Your task to perform on an android device: toggle sleep mode Image 0: 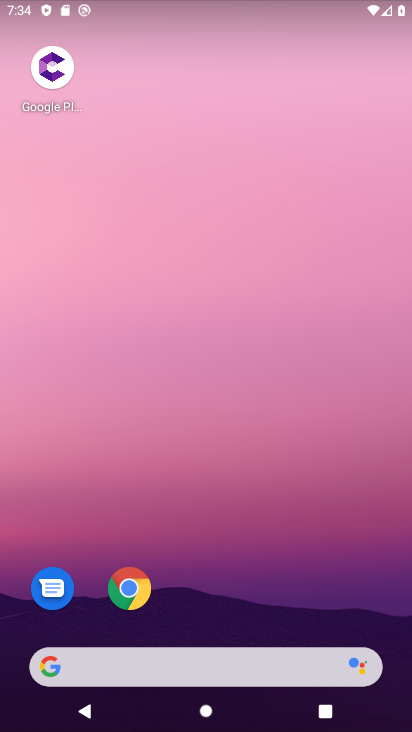
Step 0: drag from (249, 591) to (262, 0)
Your task to perform on an android device: toggle sleep mode Image 1: 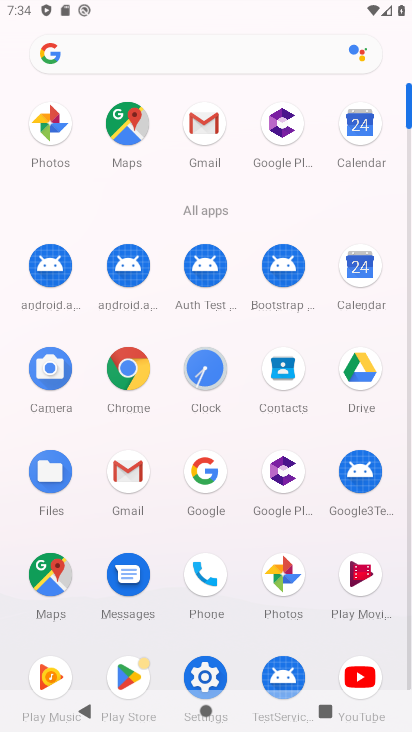
Step 1: click (210, 661)
Your task to perform on an android device: toggle sleep mode Image 2: 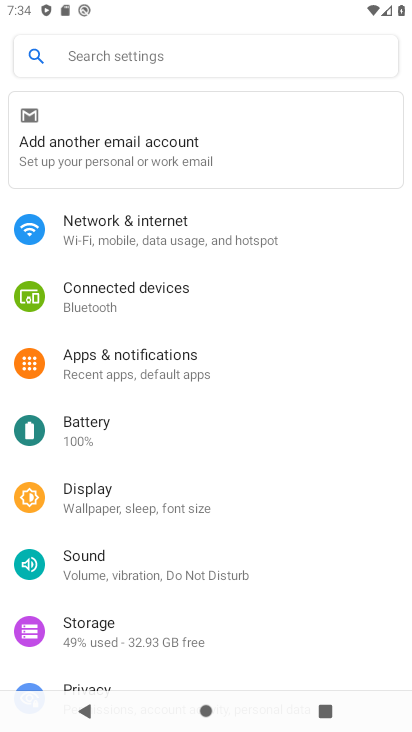
Step 2: click (127, 497)
Your task to perform on an android device: toggle sleep mode Image 3: 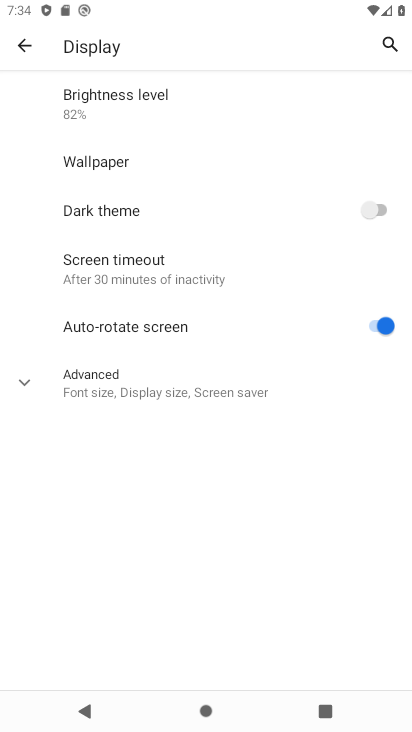
Step 3: click (23, 379)
Your task to perform on an android device: toggle sleep mode Image 4: 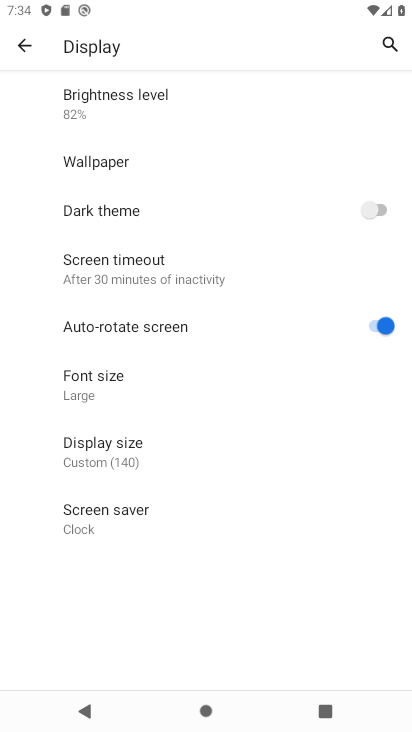
Step 4: click (102, 451)
Your task to perform on an android device: toggle sleep mode Image 5: 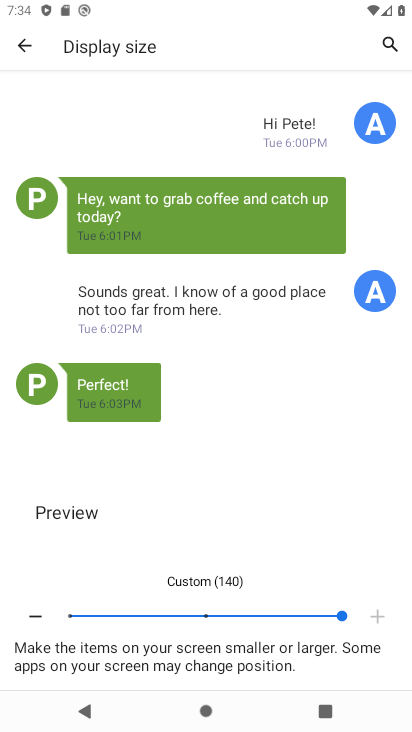
Step 5: click (32, 616)
Your task to perform on an android device: toggle sleep mode Image 6: 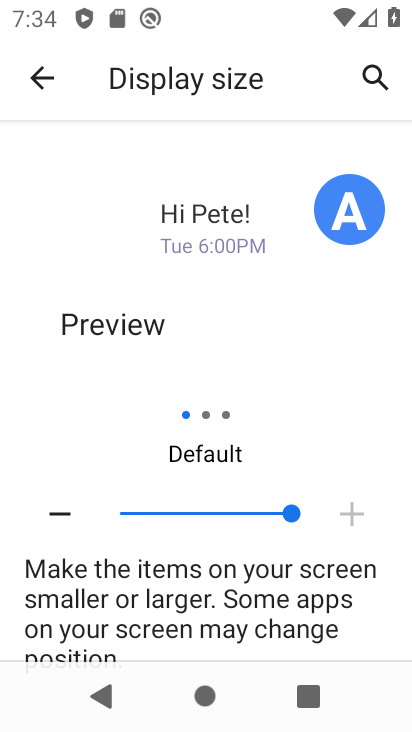
Step 6: click (62, 508)
Your task to perform on an android device: toggle sleep mode Image 7: 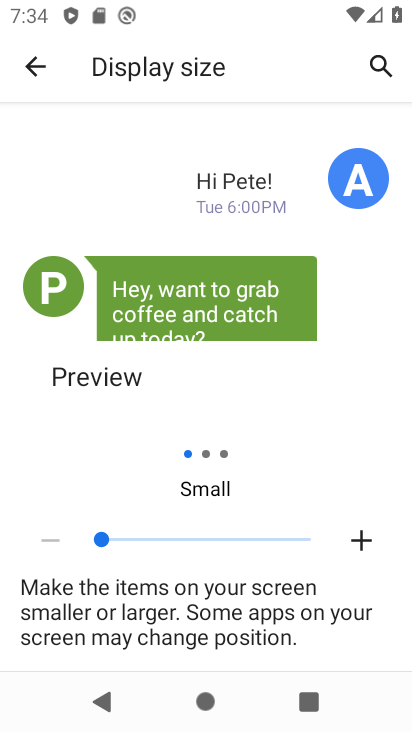
Step 7: click (35, 63)
Your task to perform on an android device: toggle sleep mode Image 8: 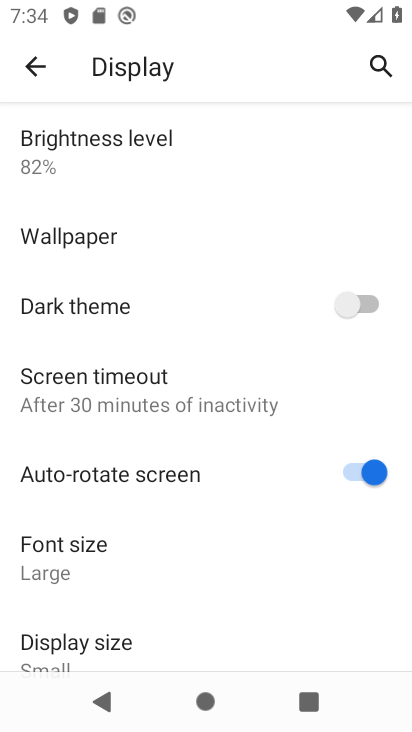
Step 8: click (76, 556)
Your task to perform on an android device: toggle sleep mode Image 9: 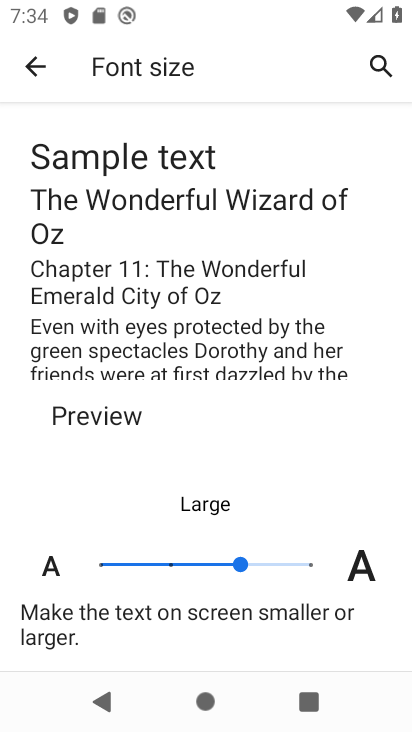
Step 9: click (170, 563)
Your task to perform on an android device: toggle sleep mode Image 10: 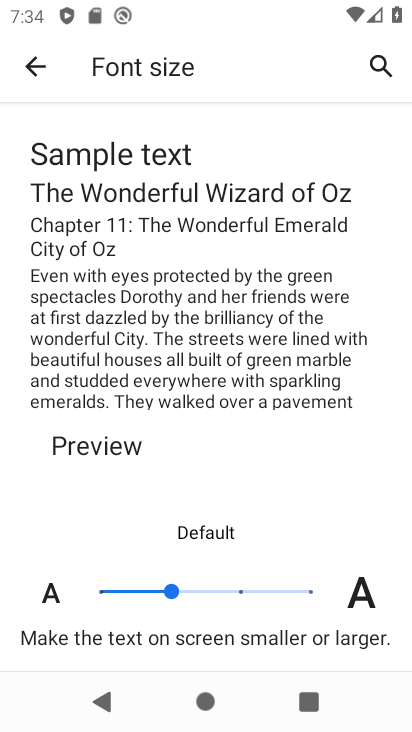
Step 10: click (39, 67)
Your task to perform on an android device: toggle sleep mode Image 11: 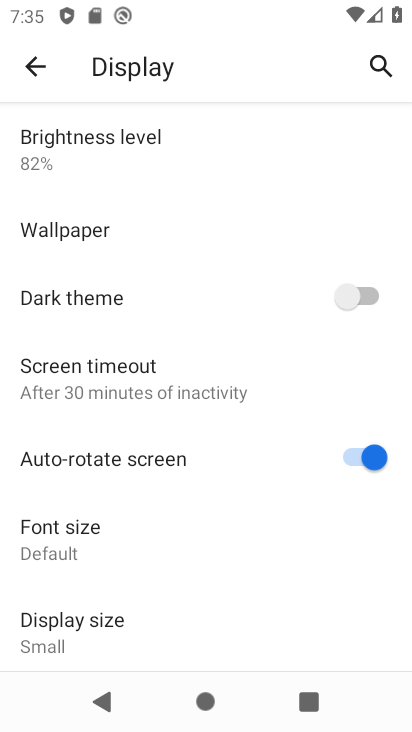
Step 11: click (39, 67)
Your task to perform on an android device: toggle sleep mode Image 12: 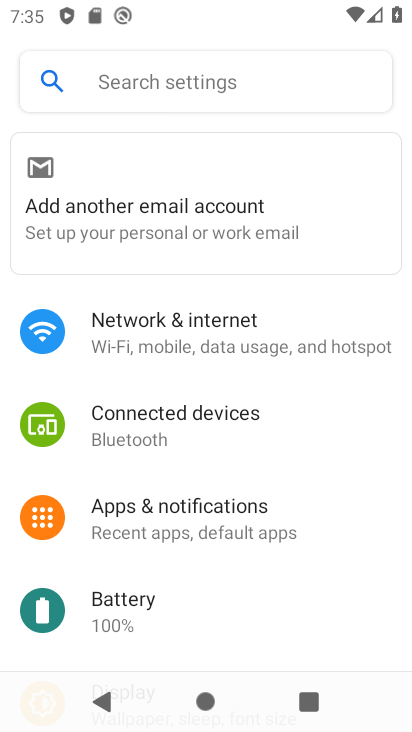
Step 12: task complete